Your task to perform on an android device: open app "LinkedIn" (install if not already installed) Image 0: 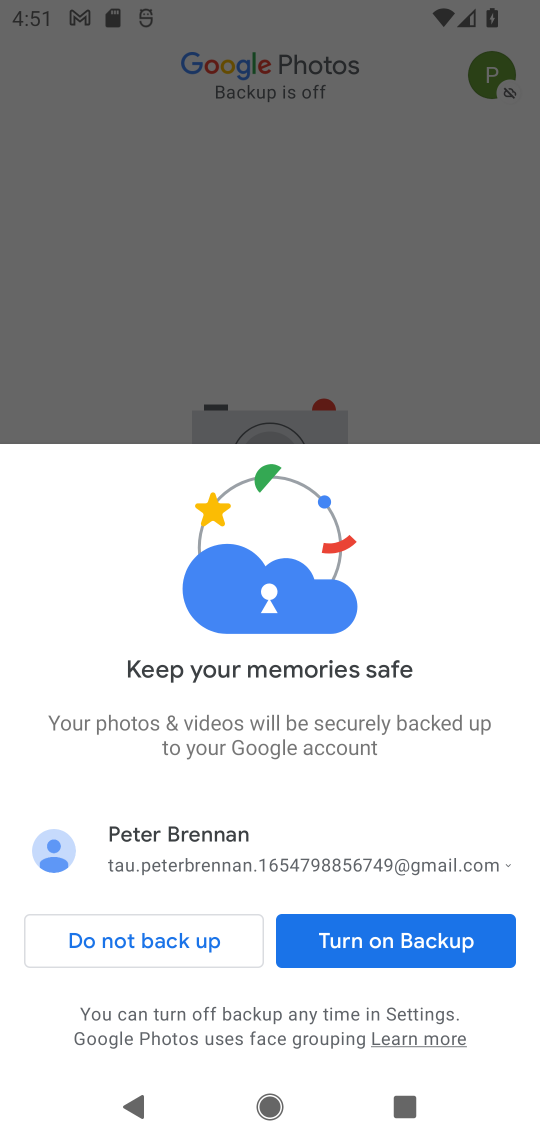
Step 0: press home button
Your task to perform on an android device: open app "LinkedIn" (install if not already installed) Image 1: 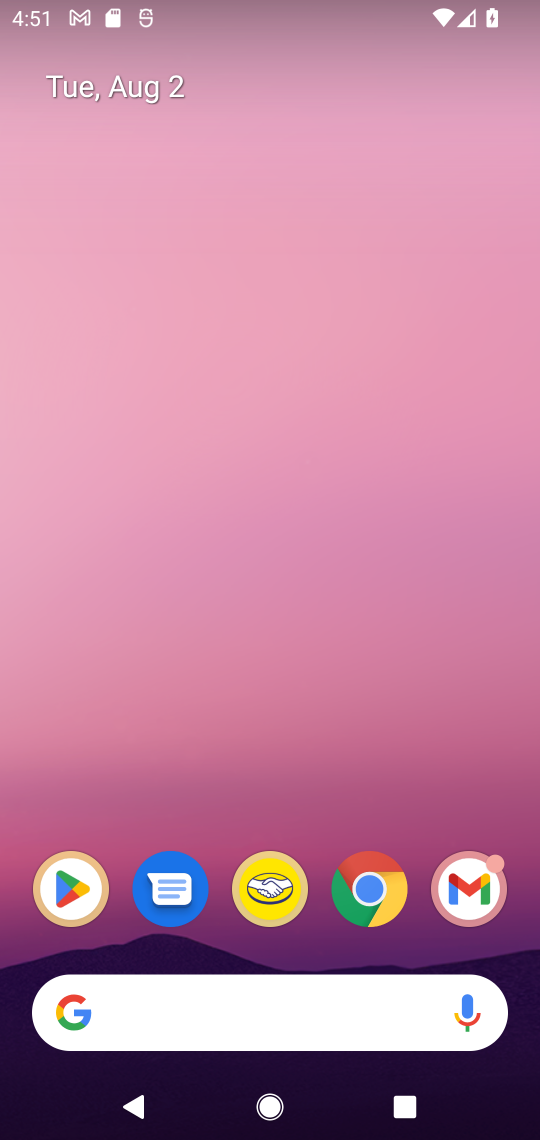
Step 1: drag from (411, 766) to (408, 190)
Your task to perform on an android device: open app "LinkedIn" (install if not already installed) Image 2: 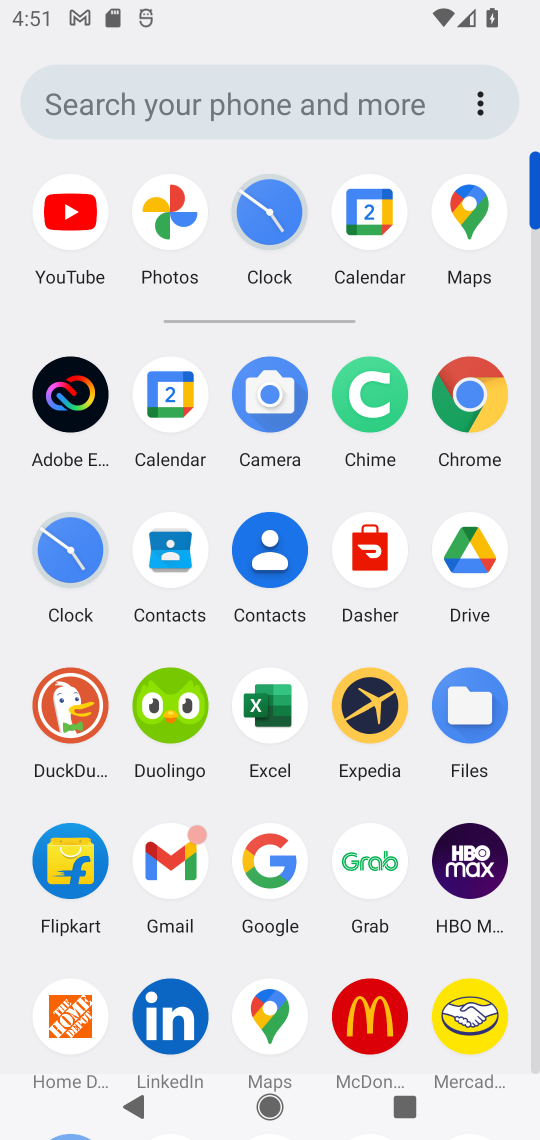
Step 2: drag from (510, 957) to (532, 326)
Your task to perform on an android device: open app "LinkedIn" (install if not already installed) Image 3: 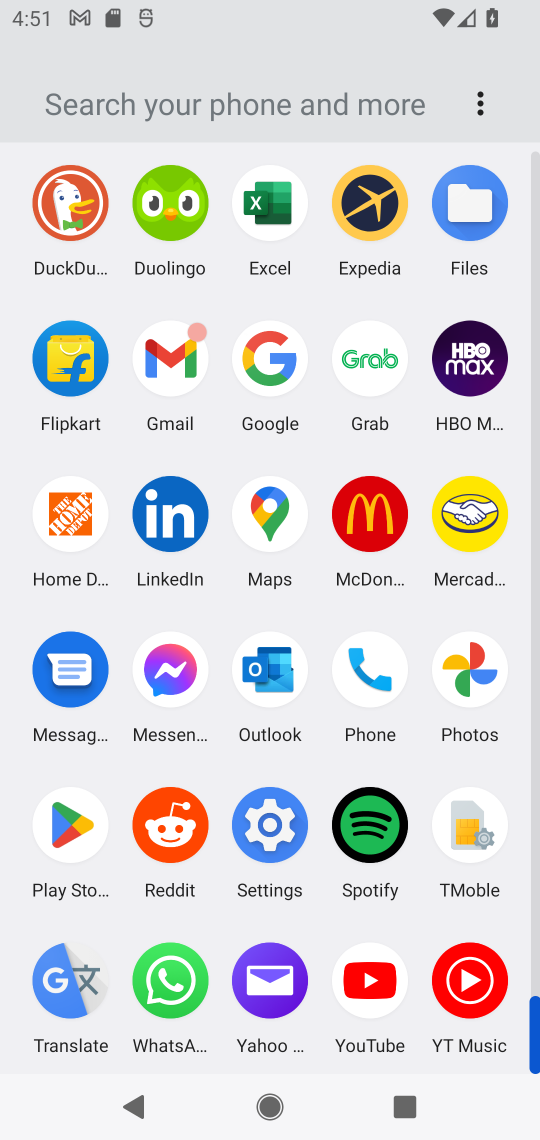
Step 3: click (68, 827)
Your task to perform on an android device: open app "LinkedIn" (install if not already installed) Image 4: 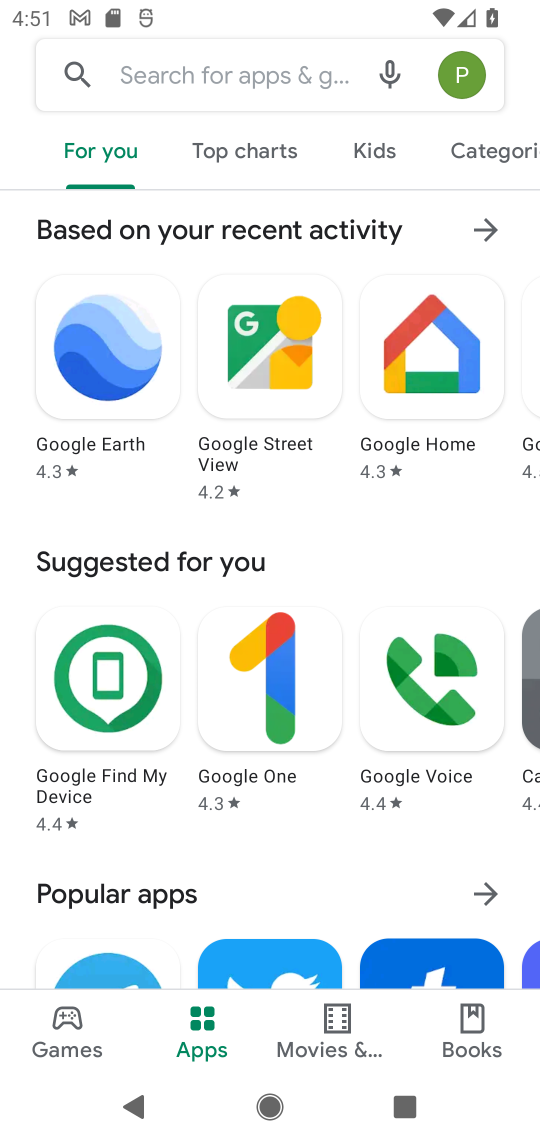
Step 4: click (288, 72)
Your task to perform on an android device: open app "LinkedIn" (install if not already installed) Image 5: 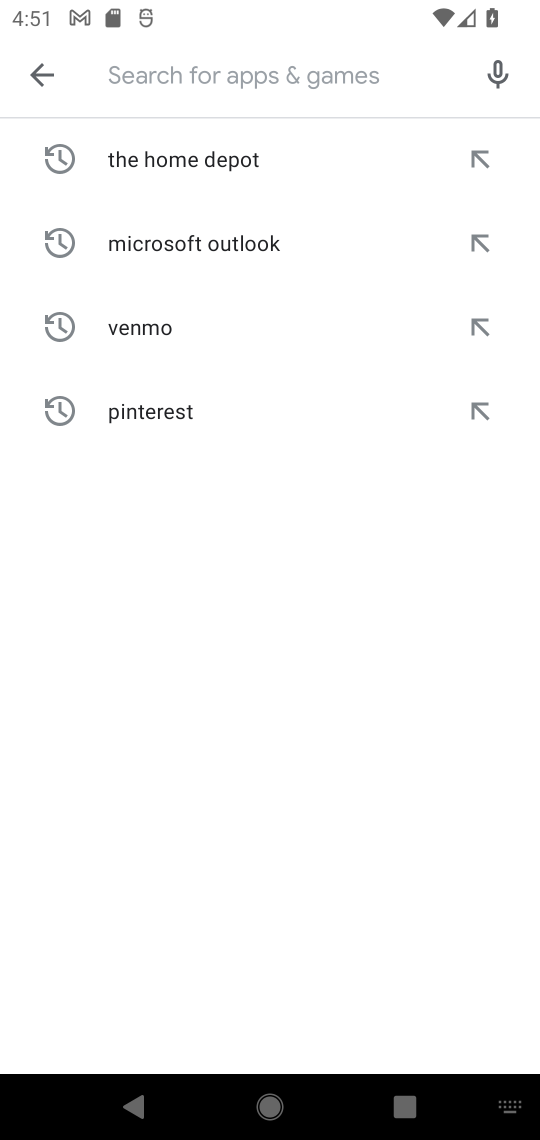
Step 5: type "linkedin"
Your task to perform on an android device: open app "LinkedIn" (install if not already installed) Image 6: 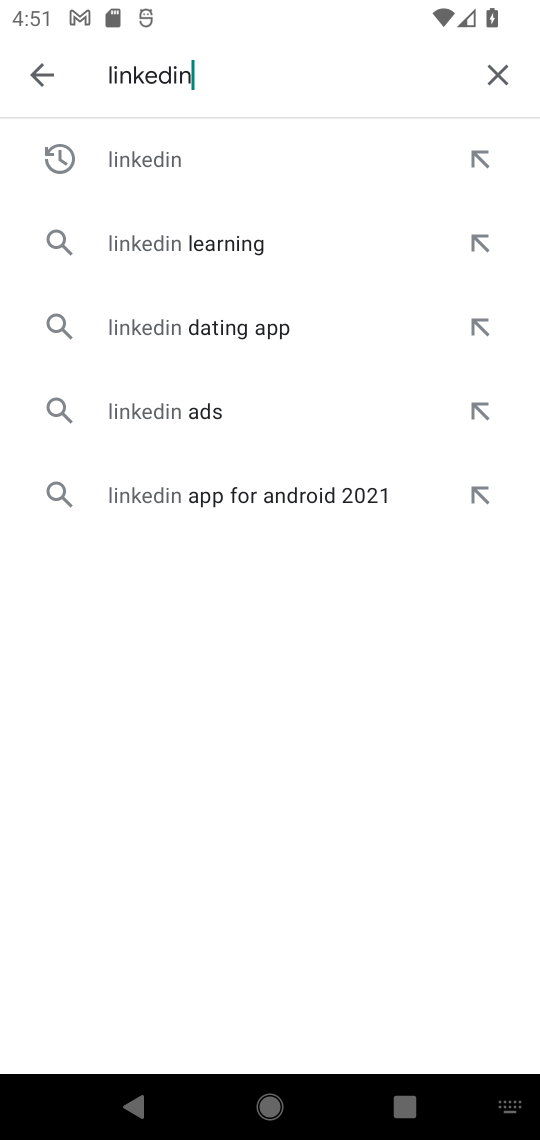
Step 6: click (203, 149)
Your task to perform on an android device: open app "LinkedIn" (install if not already installed) Image 7: 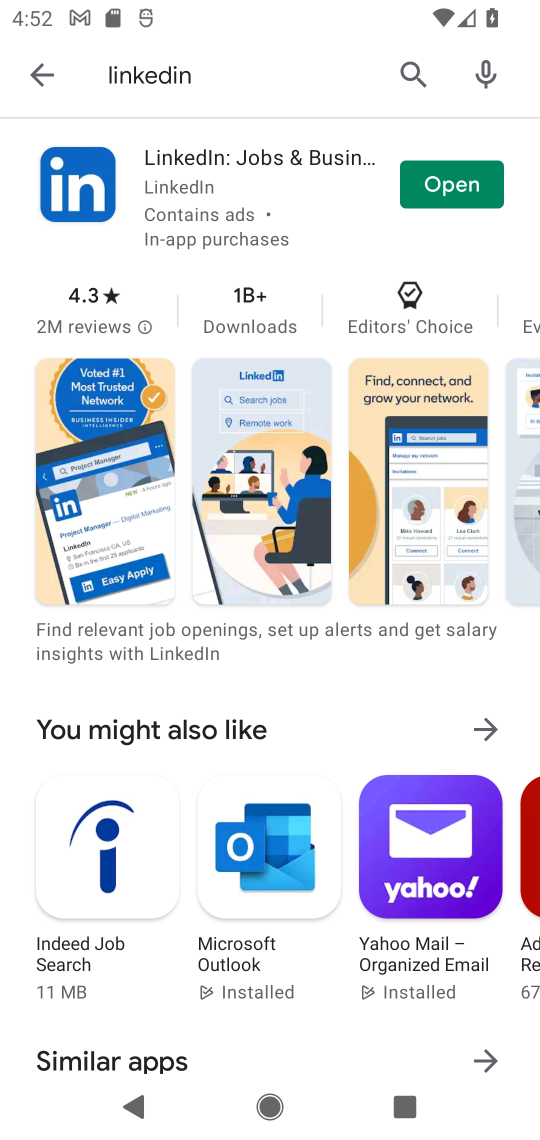
Step 7: click (453, 183)
Your task to perform on an android device: open app "LinkedIn" (install if not already installed) Image 8: 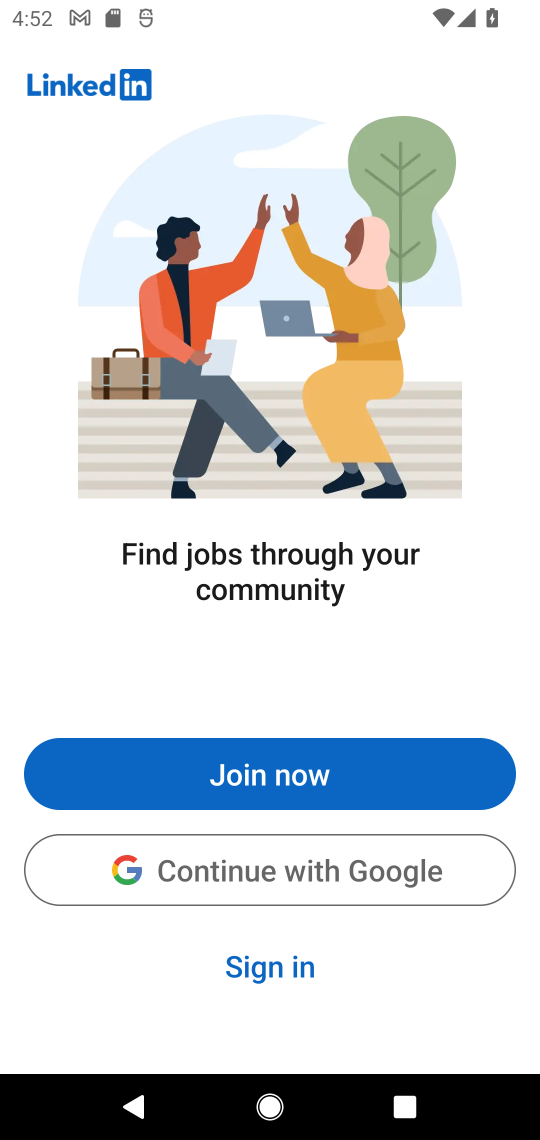
Step 8: task complete